Your task to perform on an android device: What is the capital of Brazil? Image 0: 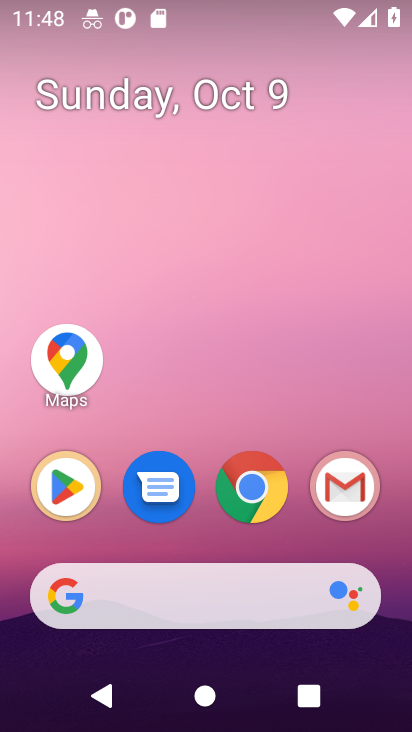
Step 0: click (256, 484)
Your task to perform on an android device: What is the capital of Brazil? Image 1: 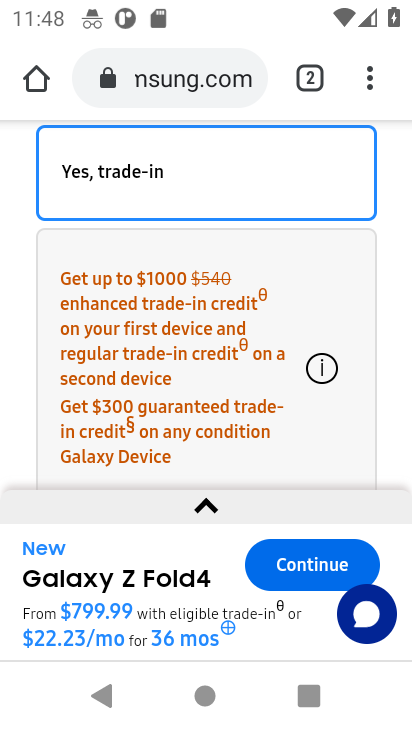
Step 1: click (197, 71)
Your task to perform on an android device: What is the capital of Brazil? Image 2: 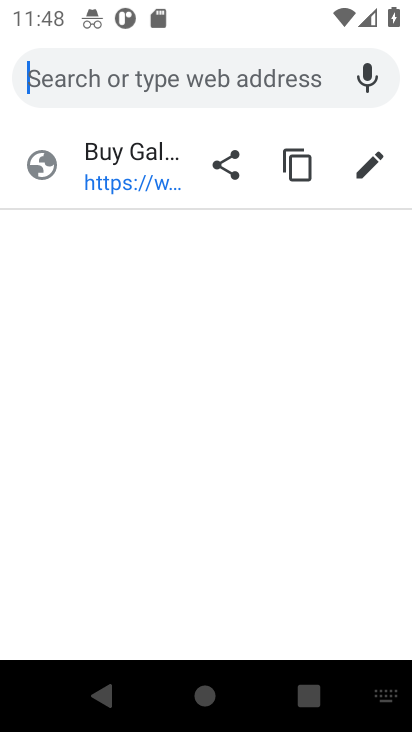
Step 2: type "capital of brazil"
Your task to perform on an android device: What is the capital of Brazil? Image 3: 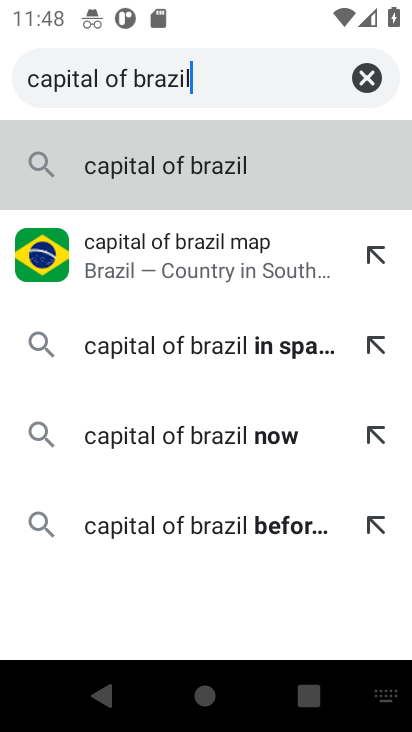
Step 3: press enter
Your task to perform on an android device: What is the capital of Brazil? Image 4: 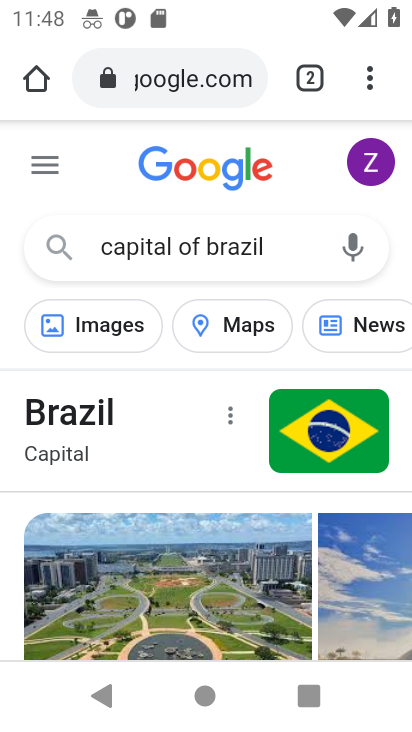
Step 4: task complete